Your task to perform on an android device: Search for the best deal on a 3d printer on aliexpress Image 0: 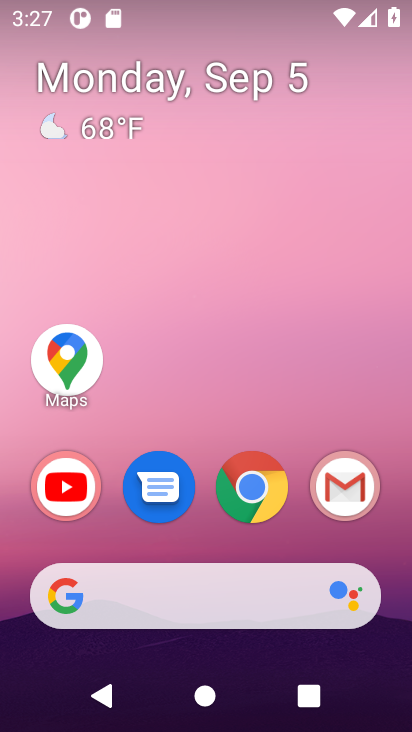
Step 0: click (249, 481)
Your task to perform on an android device: Search for the best deal on a 3d printer on aliexpress Image 1: 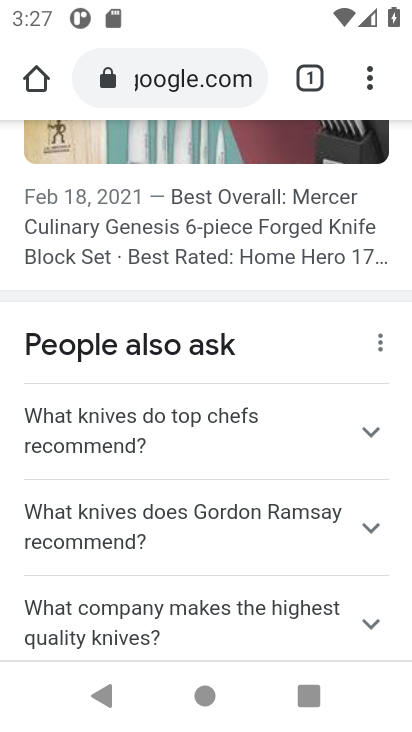
Step 1: click (188, 61)
Your task to perform on an android device: Search for the best deal on a 3d printer on aliexpress Image 2: 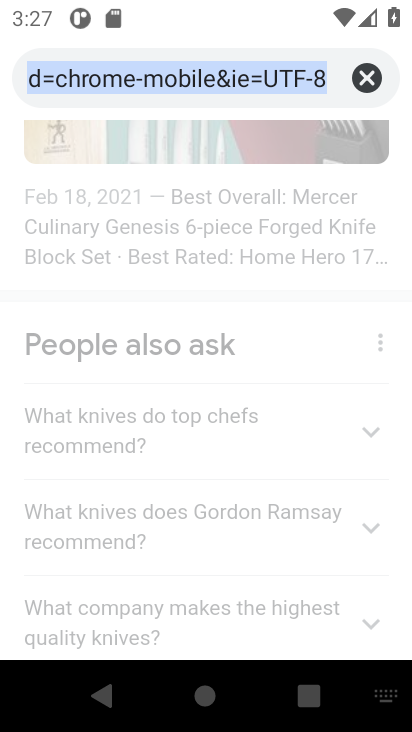
Step 2: click (355, 81)
Your task to perform on an android device: Search for the best deal on a 3d printer on aliexpress Image 3: 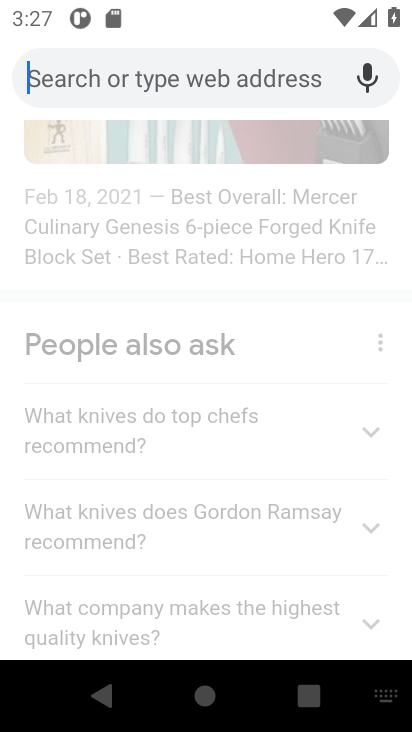
Step 3: type "the best deal on a 3d printer on aliexpress"
Your task to perform on an android device: Search for the best deal on a 3d printer on aliexpress Image 4: 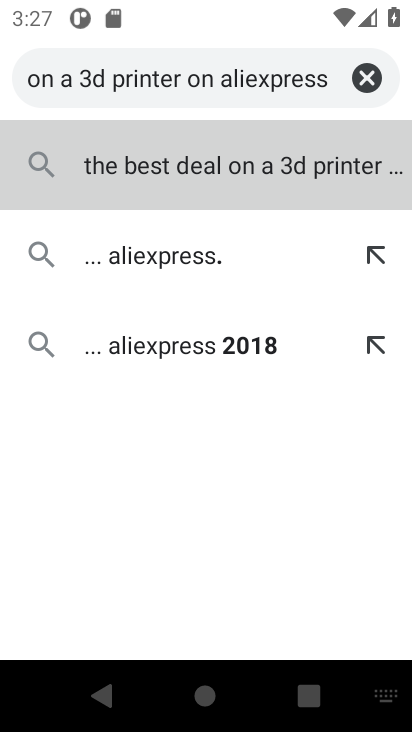
Step 4: click (318, 176)
Your task to perform on an android device: Search for the best deal on a 3d printer on aliexpress Image 5: 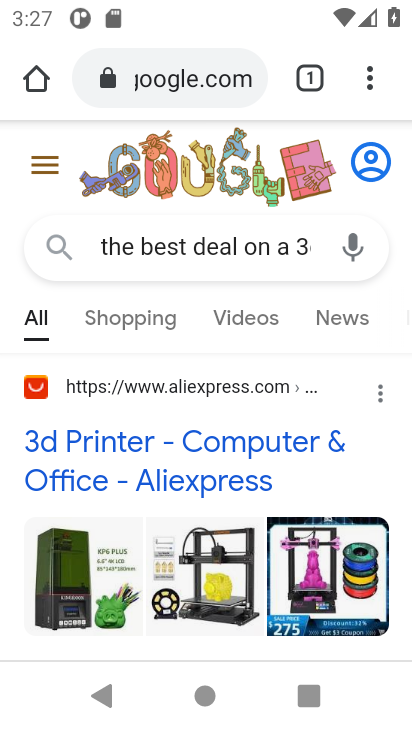
Step 5: task complete